Your task to perform on an android device: Open settings on Google Maps Image 0: 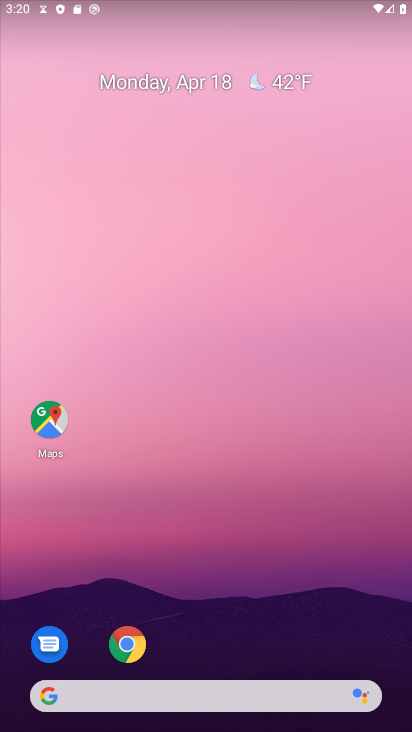
Step 0: click (46, 413)
Your task to perform on an android device: Open settings on Google Maps Image 1: 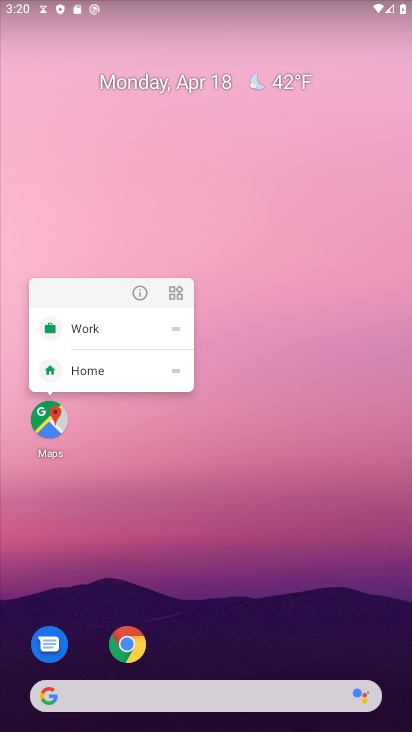
Step 1: click (50, 413)
Your task to perform on an android device: Open settings on Google Maps Image 2: 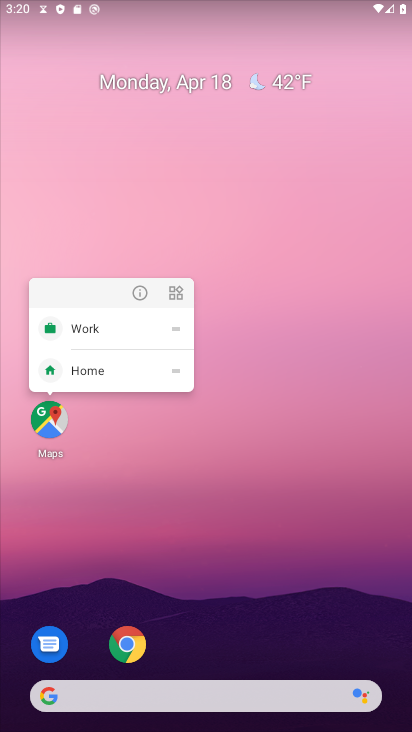
Step 2: click (58, 423)
Your task to perform on an android device: Open settings on Google Maps Image 3: 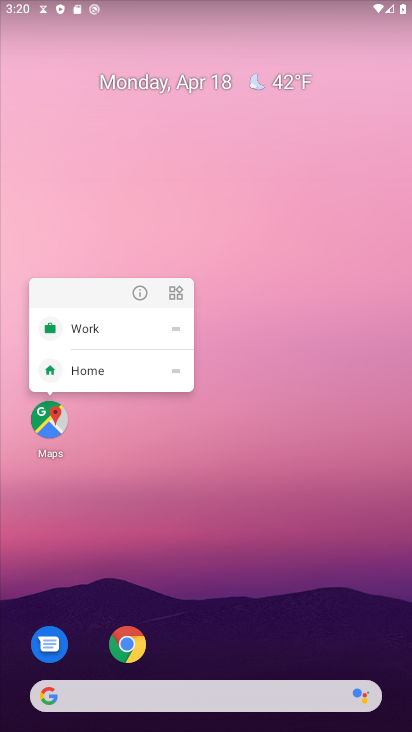
Step 3: click (59, 424)
Your task to perform on an android device: Open settings on Google Maps Image 4: 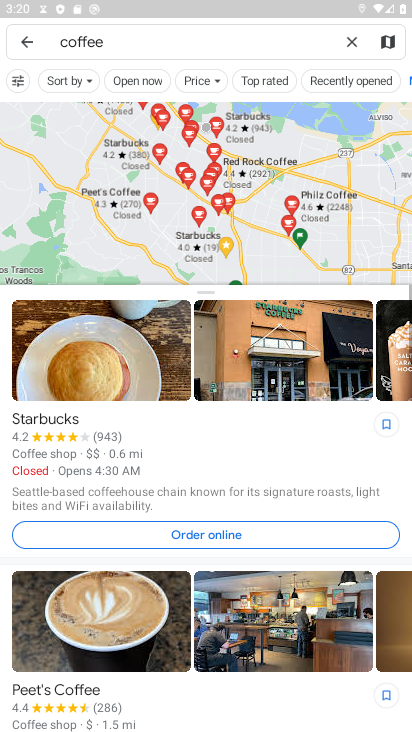
Step 4: click (34, 49)
Your task to perform on an android device: Open settings on Google Maps Image 5: 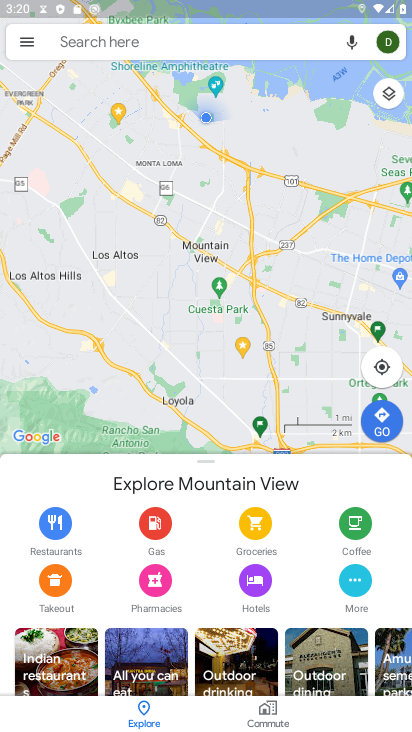
Step 5: click (29, 46)
Your task to perform on an android device: Open settings on Google Maps Image 6: 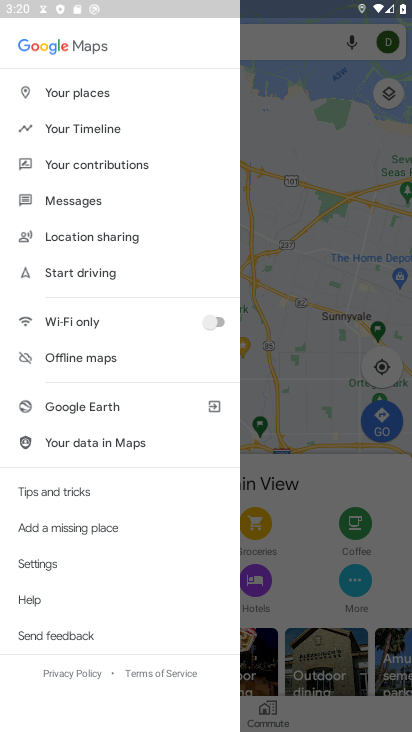
Step 6: click (99, 560)
Your task to perform on an android device: Open settings on Google Maps Image 7: 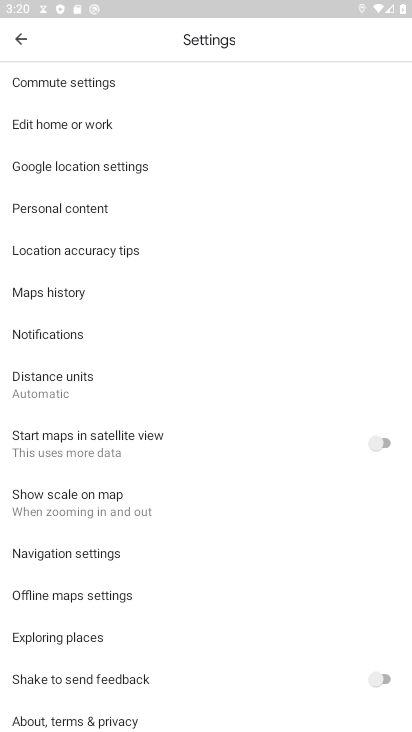
Step 7: task complete